Your task to perform on an android device: See recent photos Image 0: 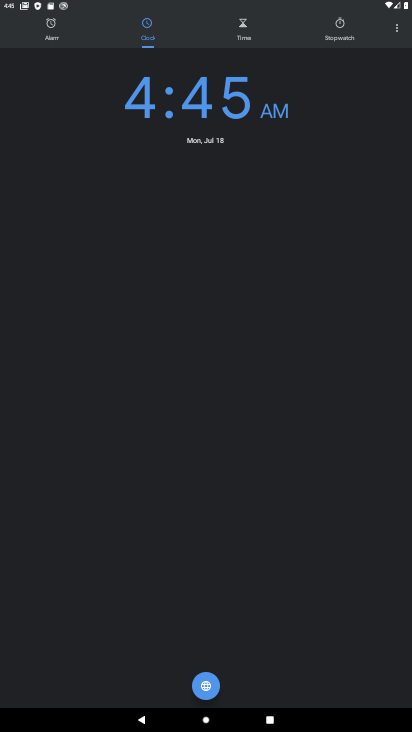
Step 0: press home button
Your task to perform on an android device: See recent photos Image 1: 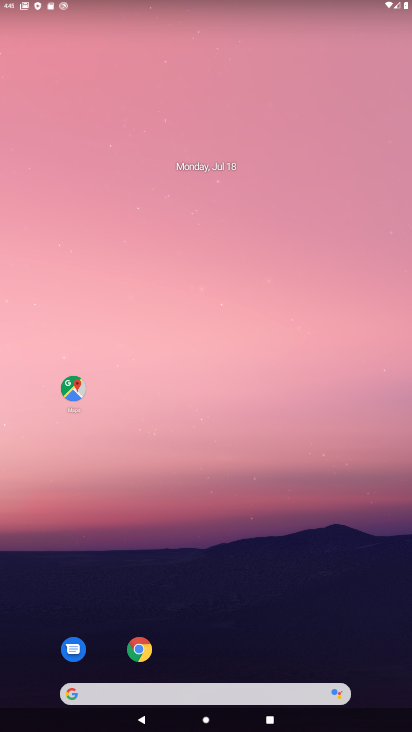
Step 1: drag from (239, 680) to (306, 229)
Your task to perform on an android device: See recent photos Image 2: 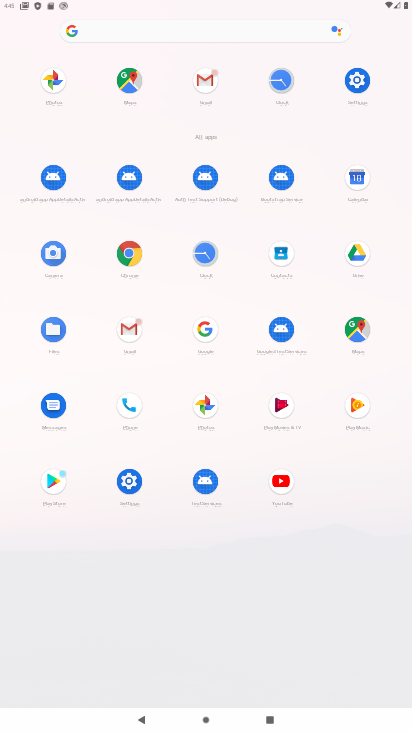
Step 2: click (203, 395)
Your task to perform on an android device: See recent photos Image 3: 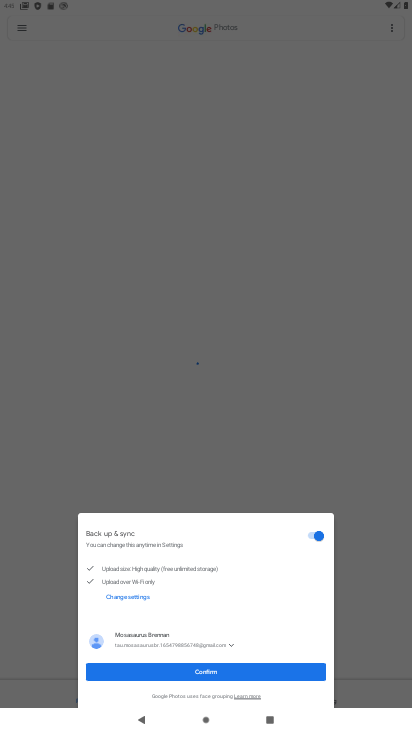
Step 3: click (242, 668)
Your task to perform on an android device: See recent photos Image 4: 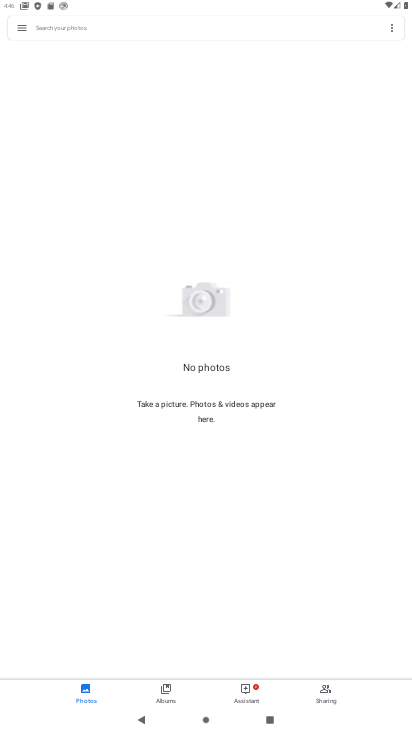
Step 4: task complete